Your task to perform on an android device: turn notification dots off Image 0: 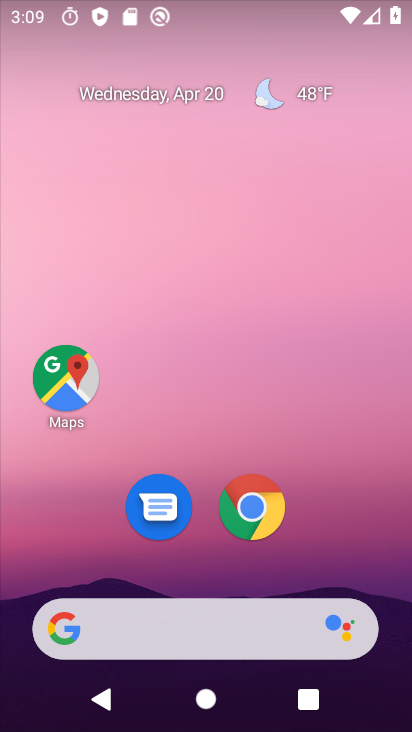
Step 0: drag from (260, 613) to (223, 141)
Your task to perform on an android device: turn notification dots off Image 1: 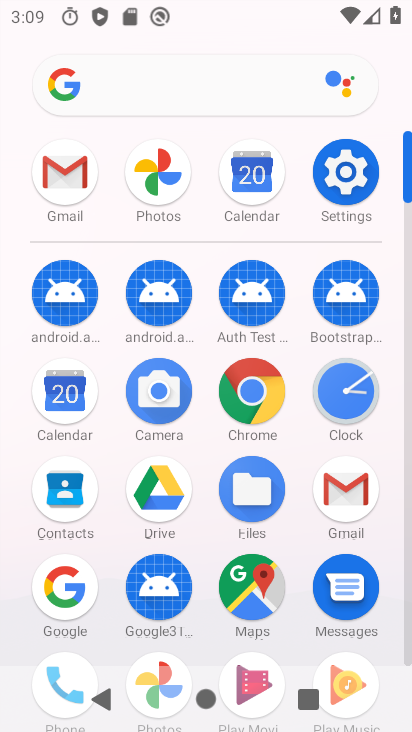
Step 1: click (330, 195)
Your task to perform on an android device: turn notification dots off Image 2: 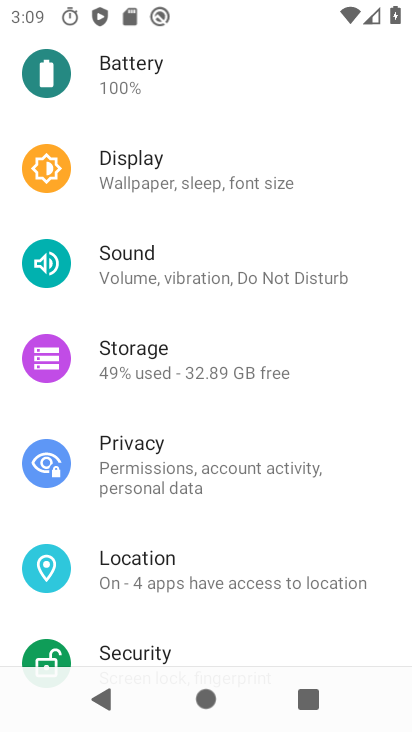
Step 2: drag from (201, 154) to (229, 464)
Your task to perform on an android device: turn notification dots off Image 3: 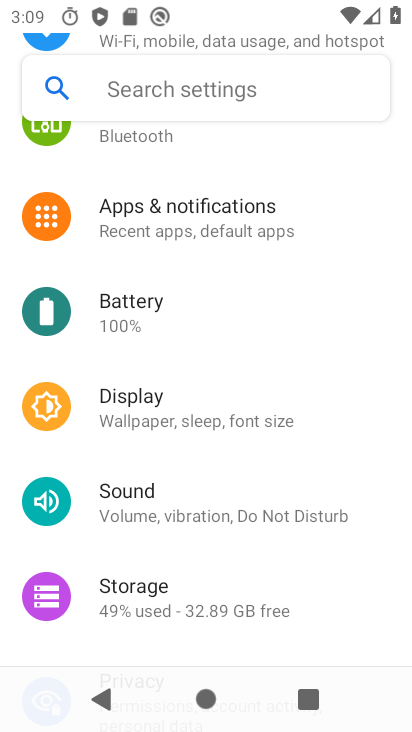
Step 3: click (188, 221)
Your task to perform on an android device: turn notification dots off Image 4: 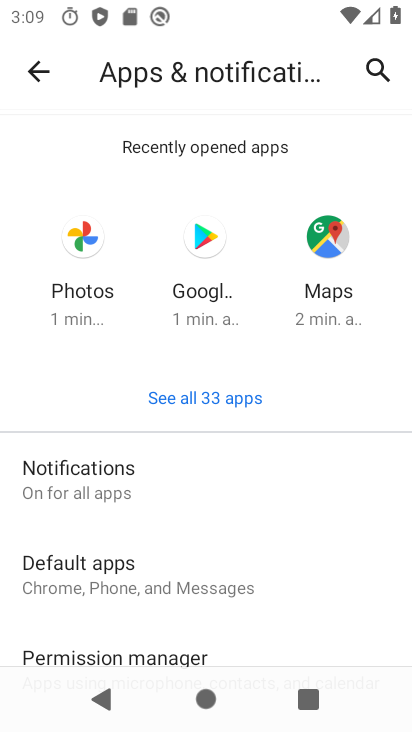
Step 4: click (173, 472)
Your task to perform on an android device: turn notification dots off Image 5: 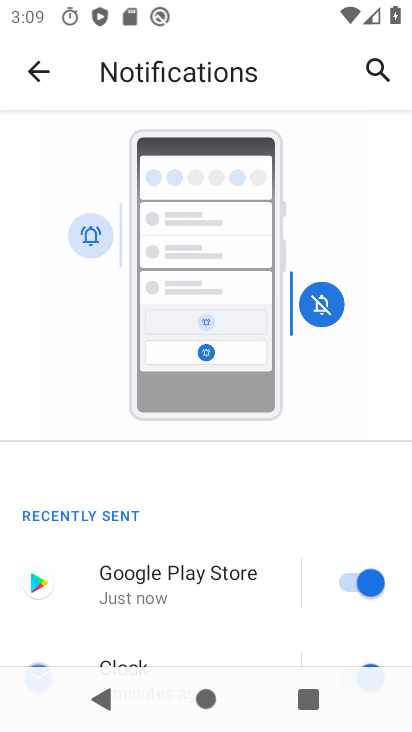
Step 5: drag from (195, 600) to (215, 191)
Your task to perform on an android device: turn notification dots off Image 6: 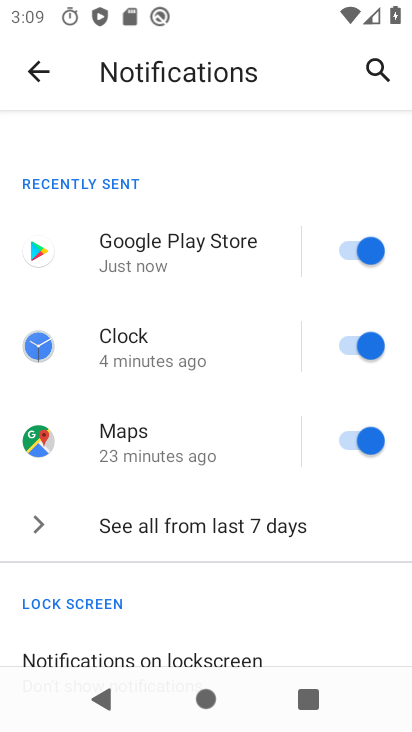
Step 6: drag from (186, 588) to (228, 136)
Your task to perform on an android device: turn notification dots off Image 7: 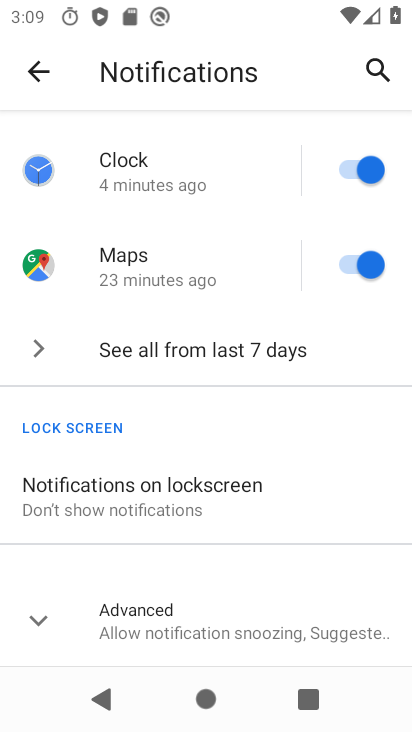
Step 7: click (171, 618)
Your task to perform on an android device: turn notification dots off Image 8: 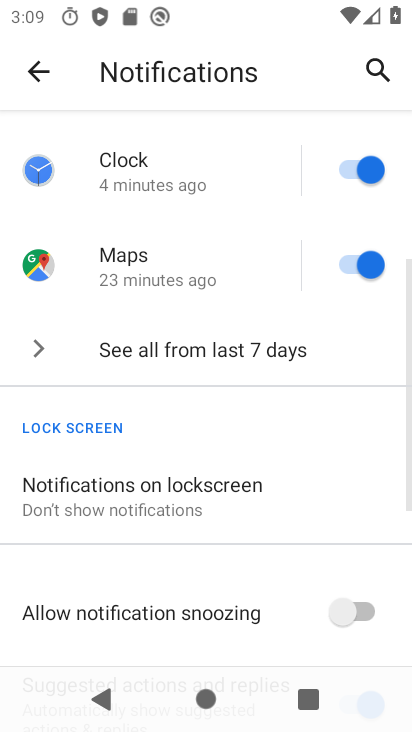
Step 8: drag from (205, 539) to (224, 199)
Your task to perform on an android device: turn notification dots off Image 9: 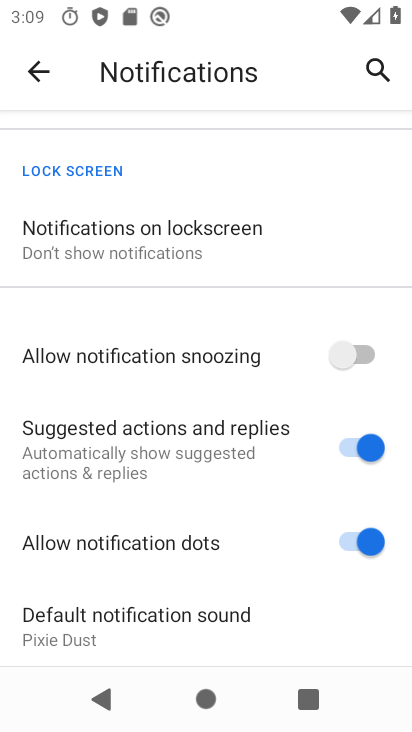
Step 9: click (350, 524)
Your task to perform on an android device: turn notification dots off Image 10: 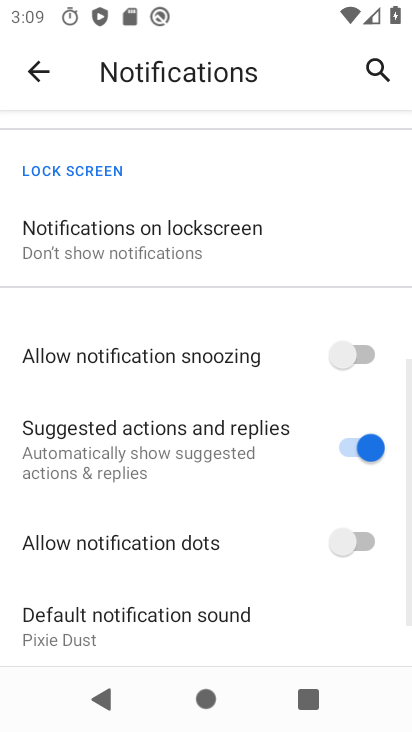
Step 10: task complete